Your task to perform on an android device: Look up "custom art" on Etsy Image 0: 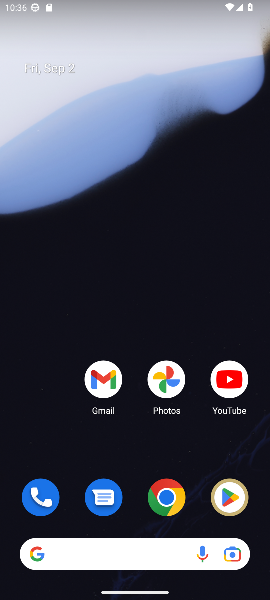
Step 0: drag from (143, 518) to (139, 162)
Your task to perform on an android device: Look up "custom art" on Etsy Image 1: 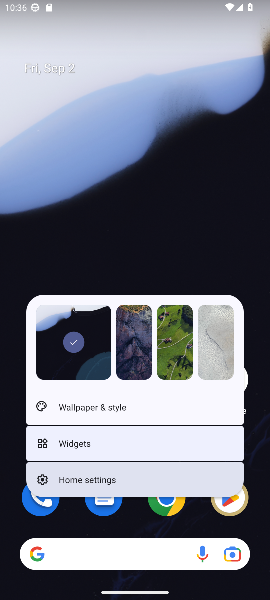
Step 1: click (142, 511)
Your task to perform on an android device: Look up "custom art" on Etsy Image 2: 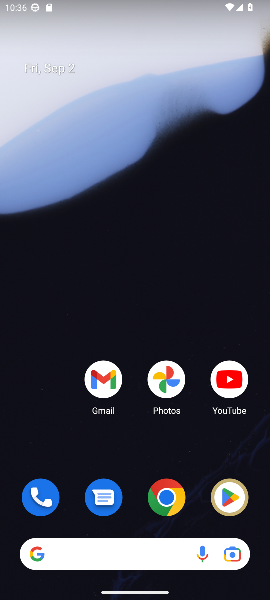
Step 2: drag from (142, 511) to (129, 181)
Your task to perform on an android device: Look up "custom art" on Etsy Image 3: 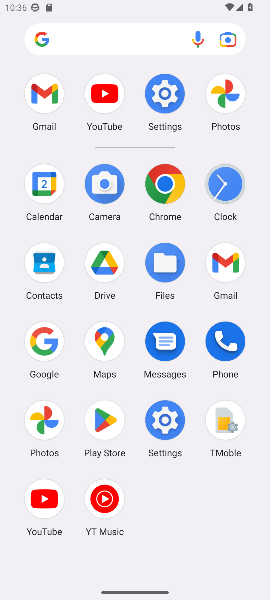
Step 3: click (45, 342)
Your task to perform on an android device: Look up "custom art" on Etsy Image 4: 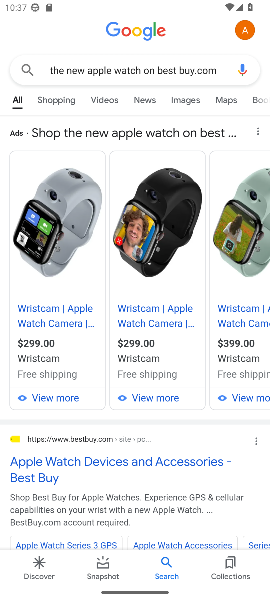
Step 4: click (206, 66)
Your task to perform on an android device: Look up "custom art" on Etsy Image 5: 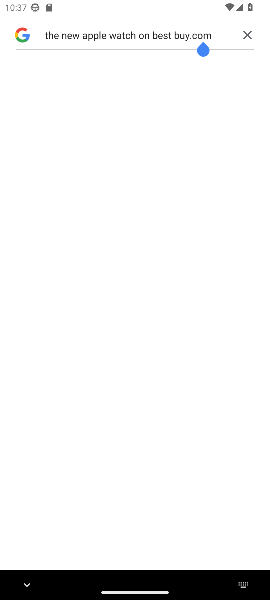
Step 5: click (249, 34)
Your task to perform on an android device: Look up "custom art" on Etsy Image 6: 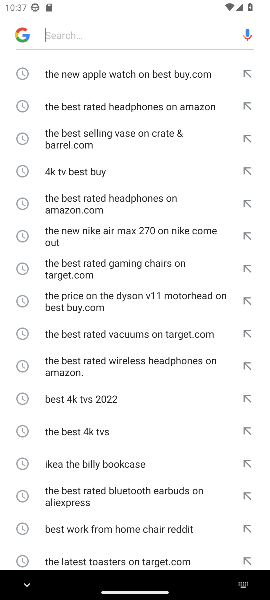
Step 6: type "custom art" on Etsy"
Your task to perform on an android device: Look up "custom art" on Etsy Image 7: 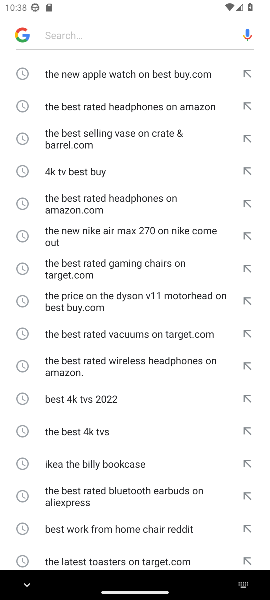
Step 7: task complete